Your task to perform on an android device: Open Chrome and go to settings Image 0: 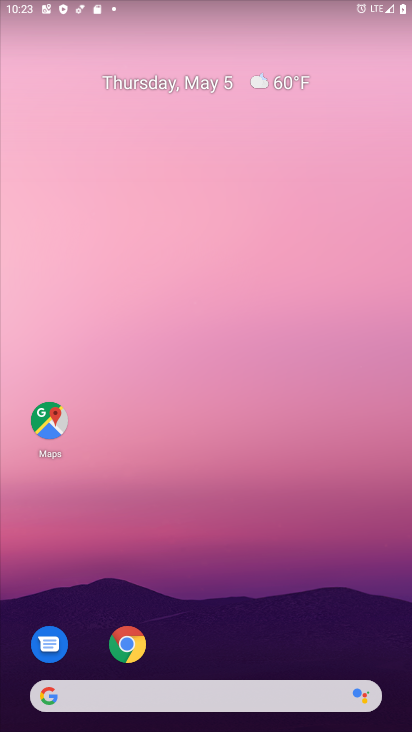
Step 0: click (123, 642)
Your task to perform on an android device: Open Chrome and go to settings Image 1: 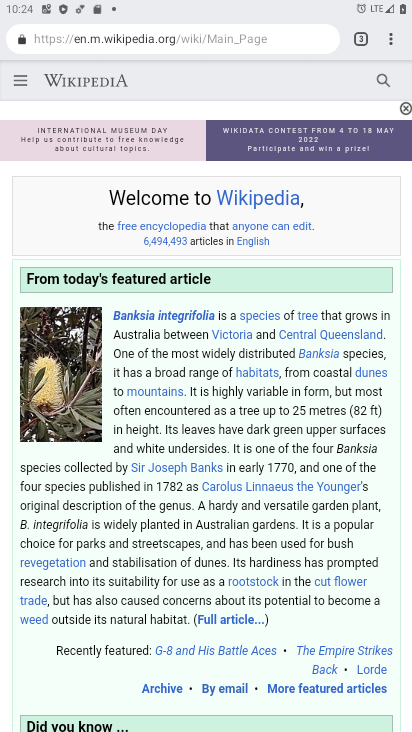
Step 1: task complete